Your task to perform on an android device: turn on improve location accuracy Image 0: 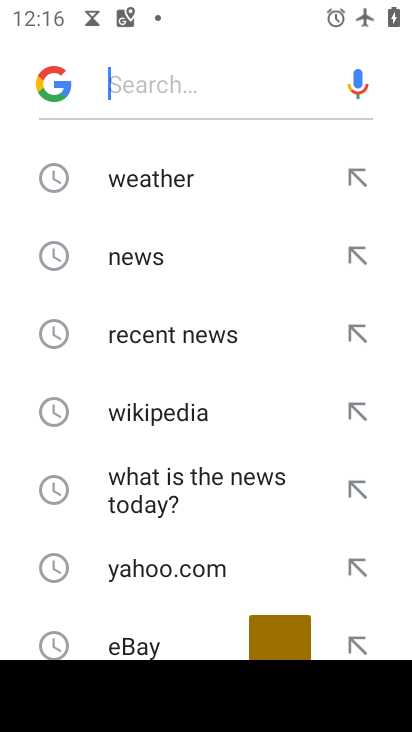
Step 0: press home button
Your task to perform on an android device: turn on improve location accuracy Image 1: 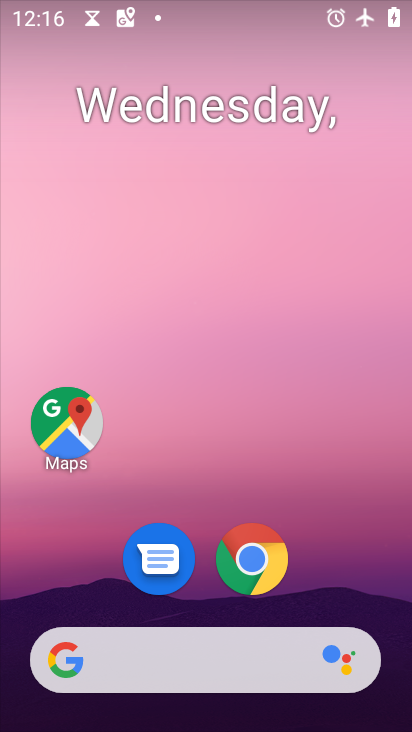
Step 1: drag from (347, 561) to (259, 7)
Your task to perform on an android device: turn on improve location accuracy Image 2: 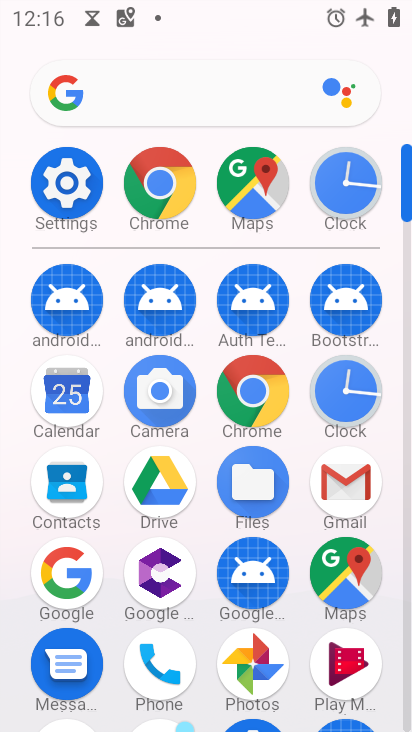
Step 2: click (70, 191)
Your task to perform on an android device: turn on improve location accuracy Image 3: 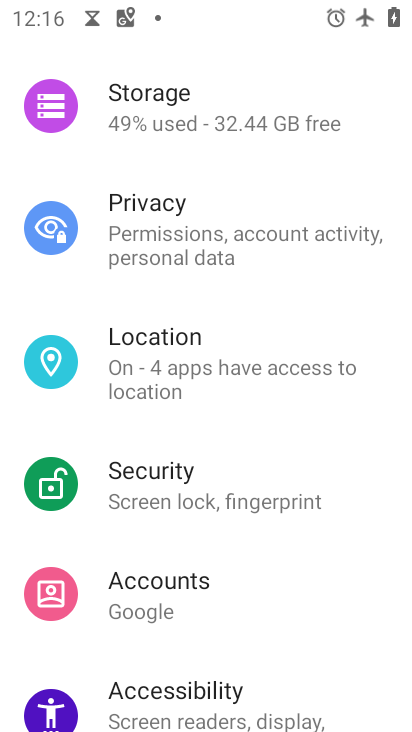
Step 3: click (146, 347)
Your task to perform on an android device: turn on improve location accuracy Image 4: 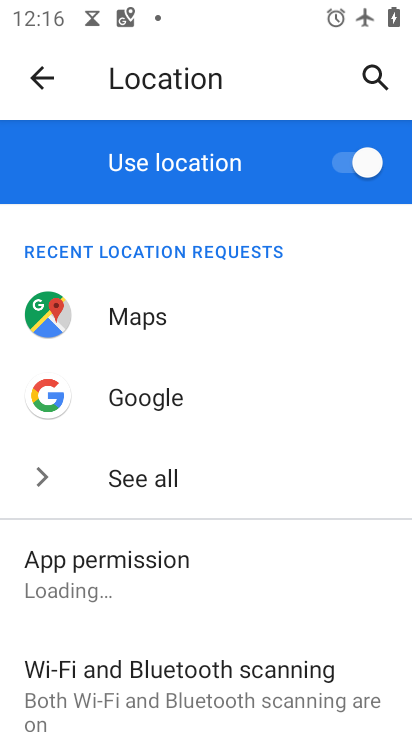
Step 4: drag from (231, 656) to (244, 224)
Your task to perform on an android device: turn on improve location accuracy Image 5: 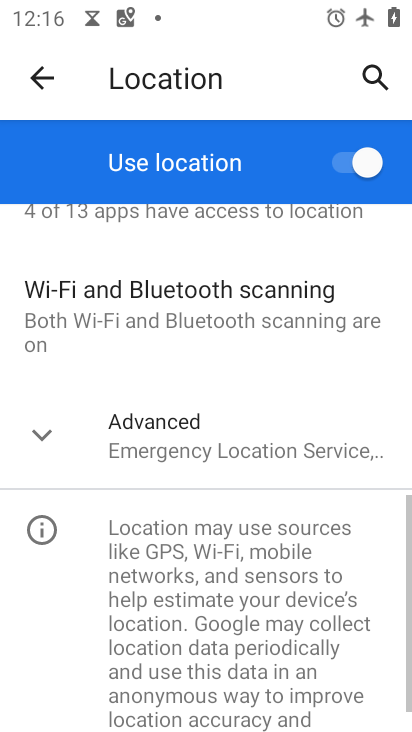
Step 5: drag from (250, 331) to (236, 667)
Your task to perform on an android device: turn on improve location accuracy Image 6: 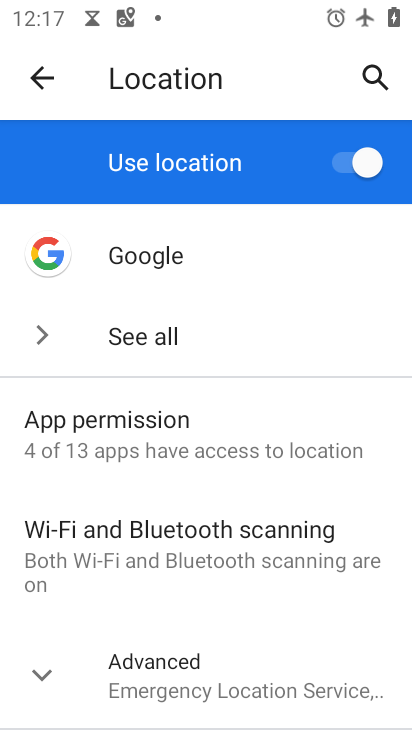
Step 6: drag from (211, 670) to (200, 243)
Your task to perform on an android device: turn on improve location accuracy Image 7: 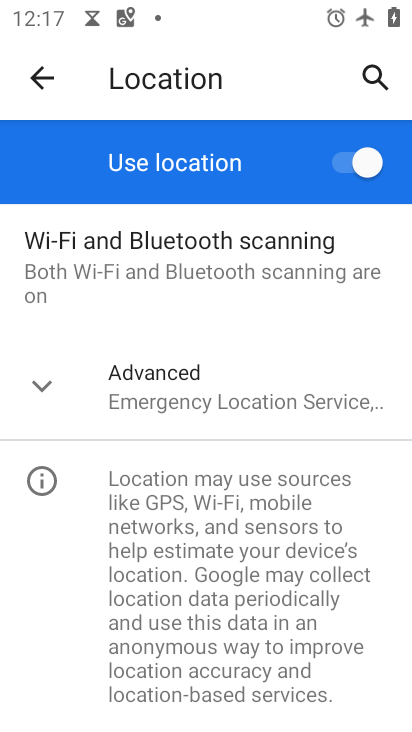
Step 7: click (127, 412)
Your task to perform on an android device: turn on improve location accuracy Image 8: 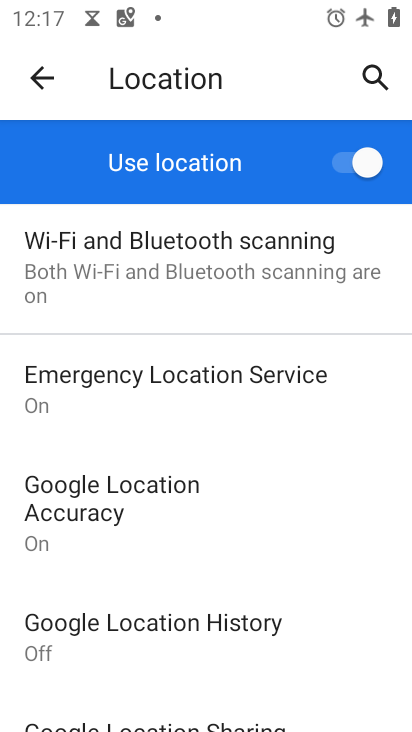
Step 8: drag from (235, 584) to (248, 324)
Your task to perform on an android device: turn on improve location accuracy Image 9: 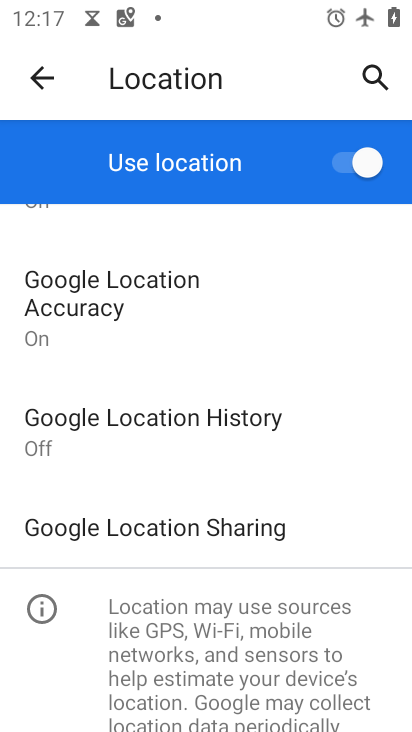
Step 9: click (96, 283)
Your task to perform on an android device: turn on improve location accuracy Image 10: 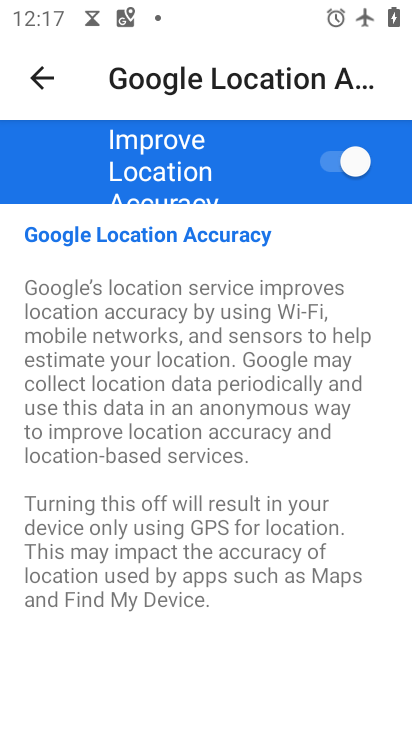
Step 10: task complete